Your task to perform on an android device: open app "ColorNote Notepad Notes" Image 0: 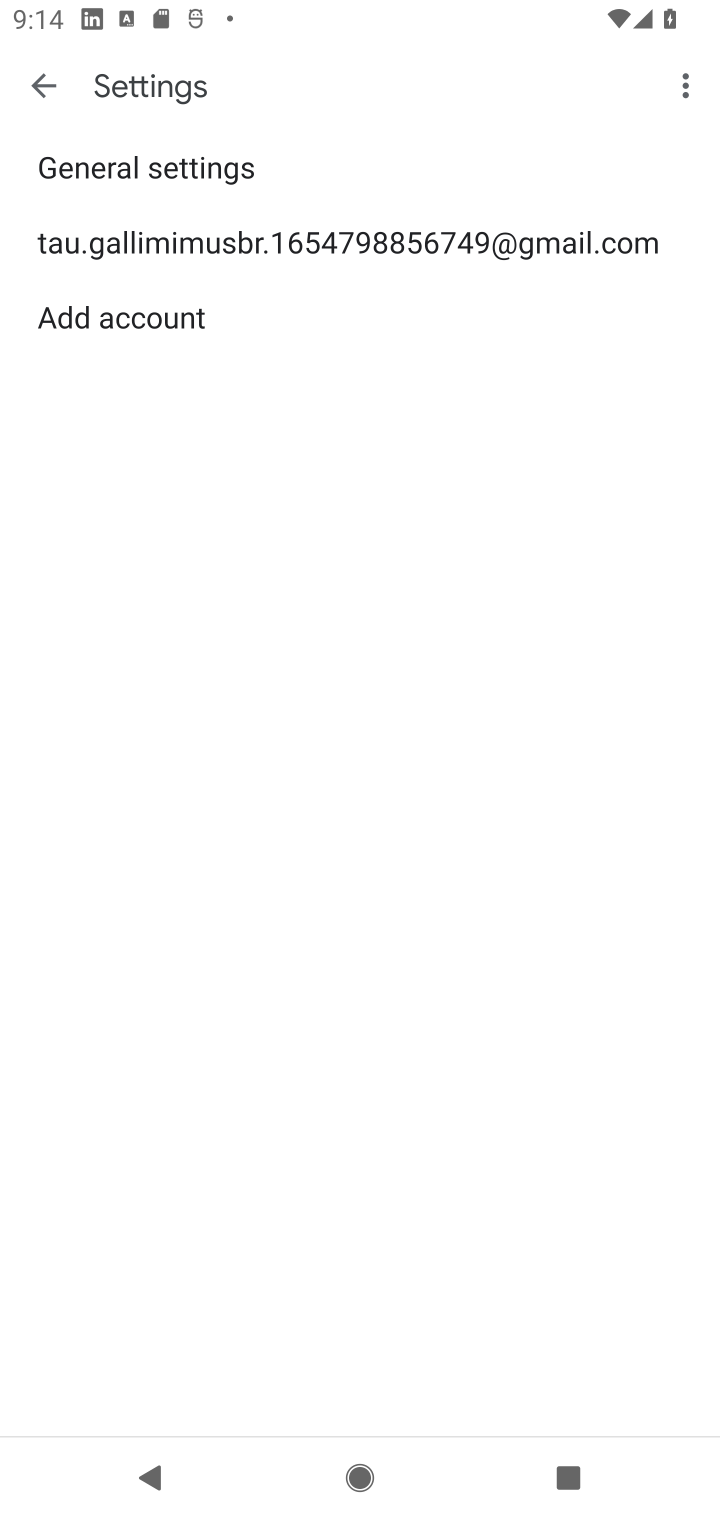
Step 0: press home button
Your task to perform on an android device: open app "ColorNote Notepad Notes" Image 1: 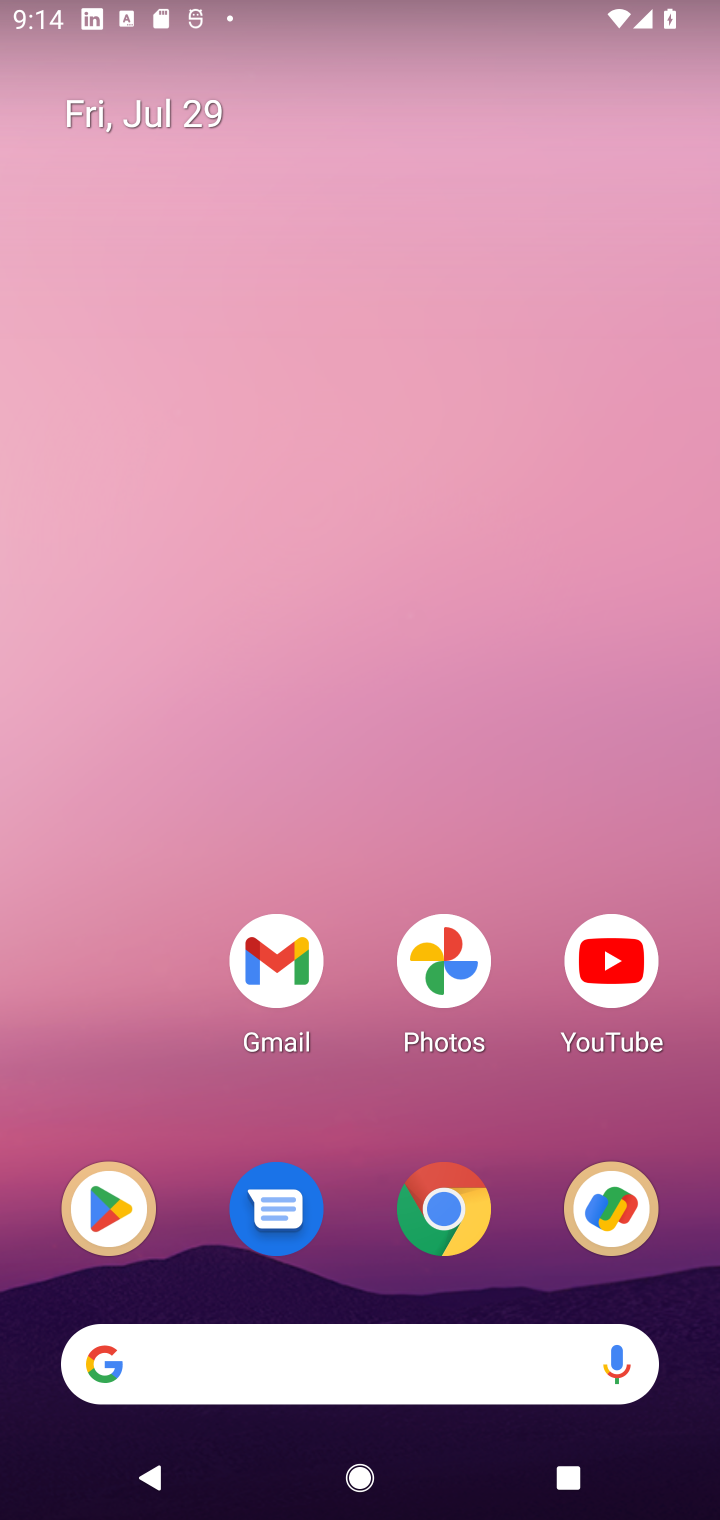
Step 1: click (99, 1203)
Your task to perform on an android device: open app "ColorNote Notepad Notes" Image 2: 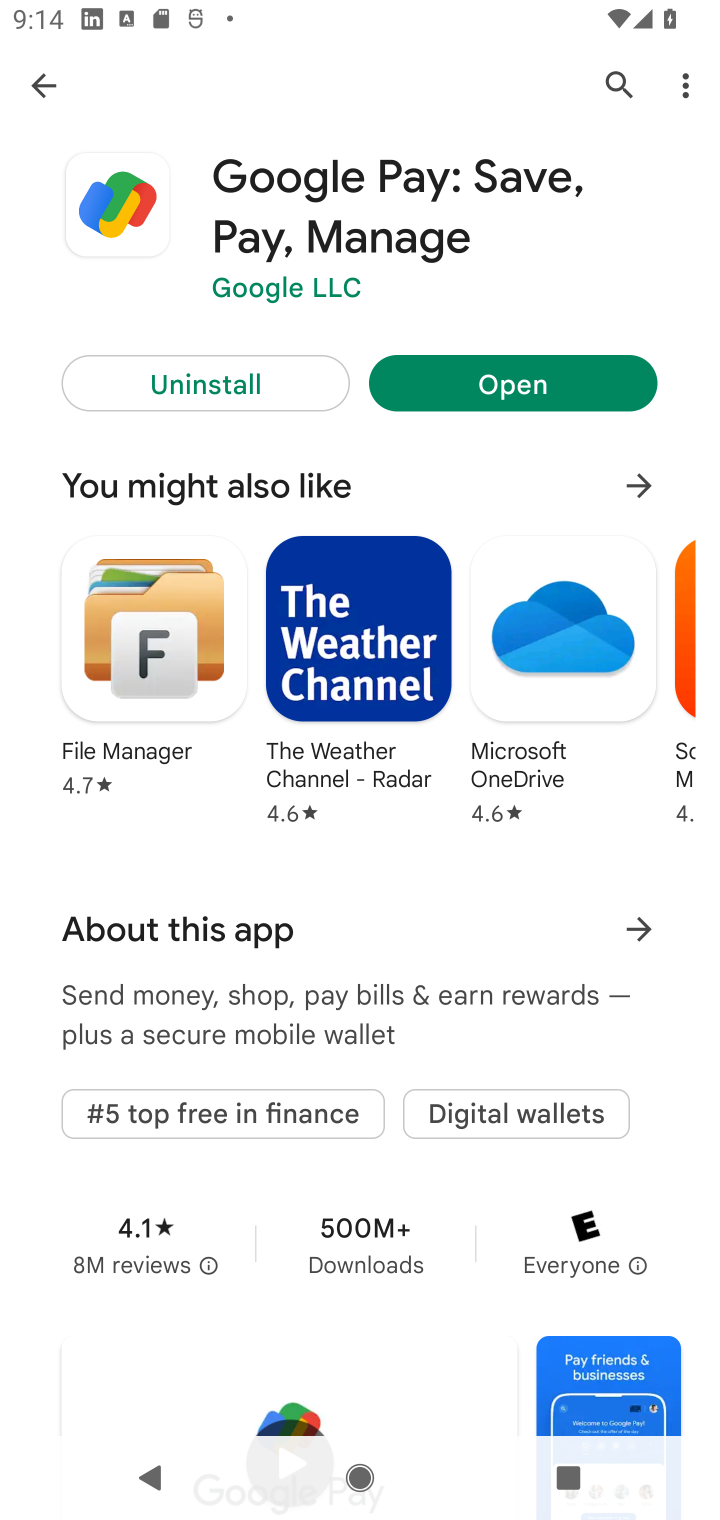
Step 2: click (609, 78)
Your task to perform on an android device: open app "ColorNote Notepad Notes" Image 3: 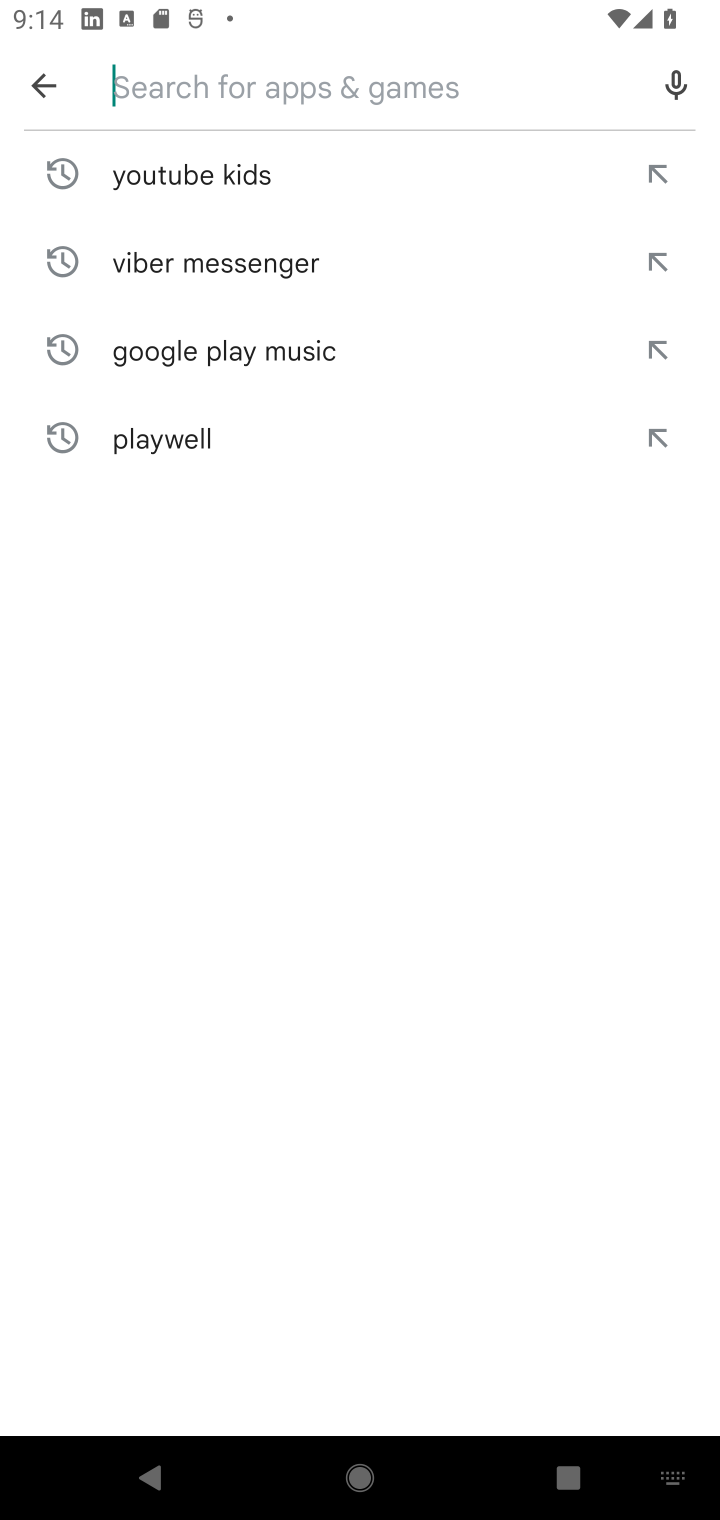
Step 3: type "ColorNote Notepad Notes"
Your task to perform on an android device: open app "ColorNote Notepad Notes" Image 4: 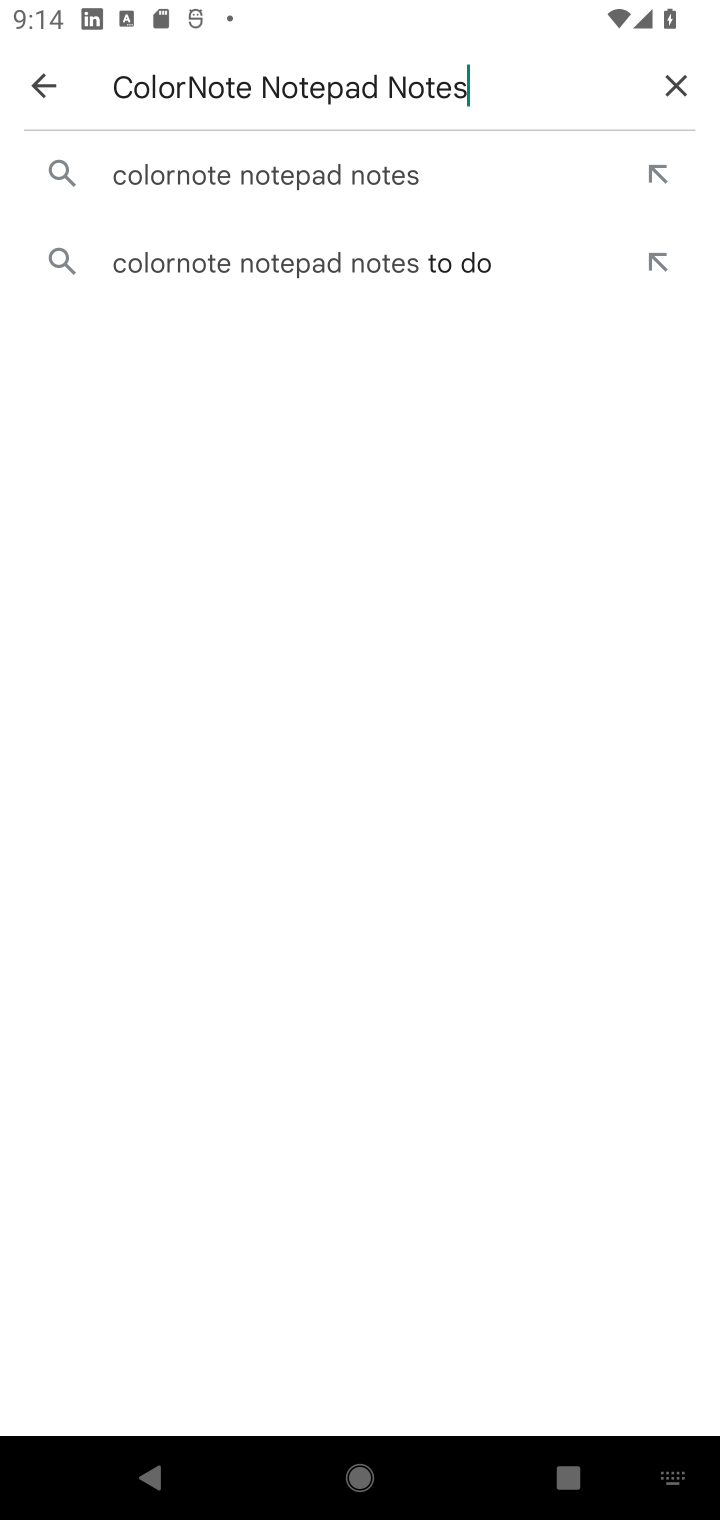
Step 4: click (267, 190)
Your task to perform on an android device: open app "ColorNote Notepad Notes" Image 5: 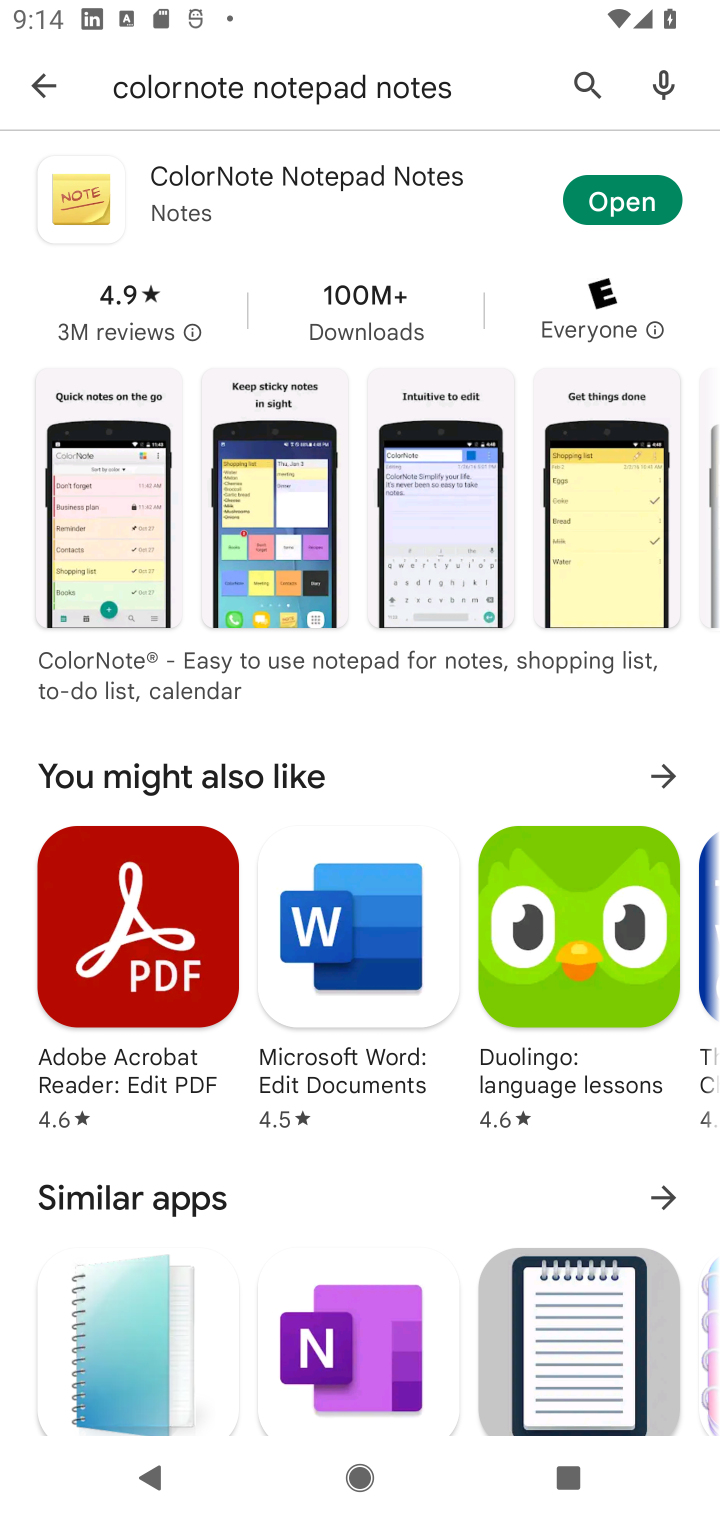
Step 5: click (588, 203)
Your task to perform on an android device: open app "ColorNote Notepad Notes" Image 6: 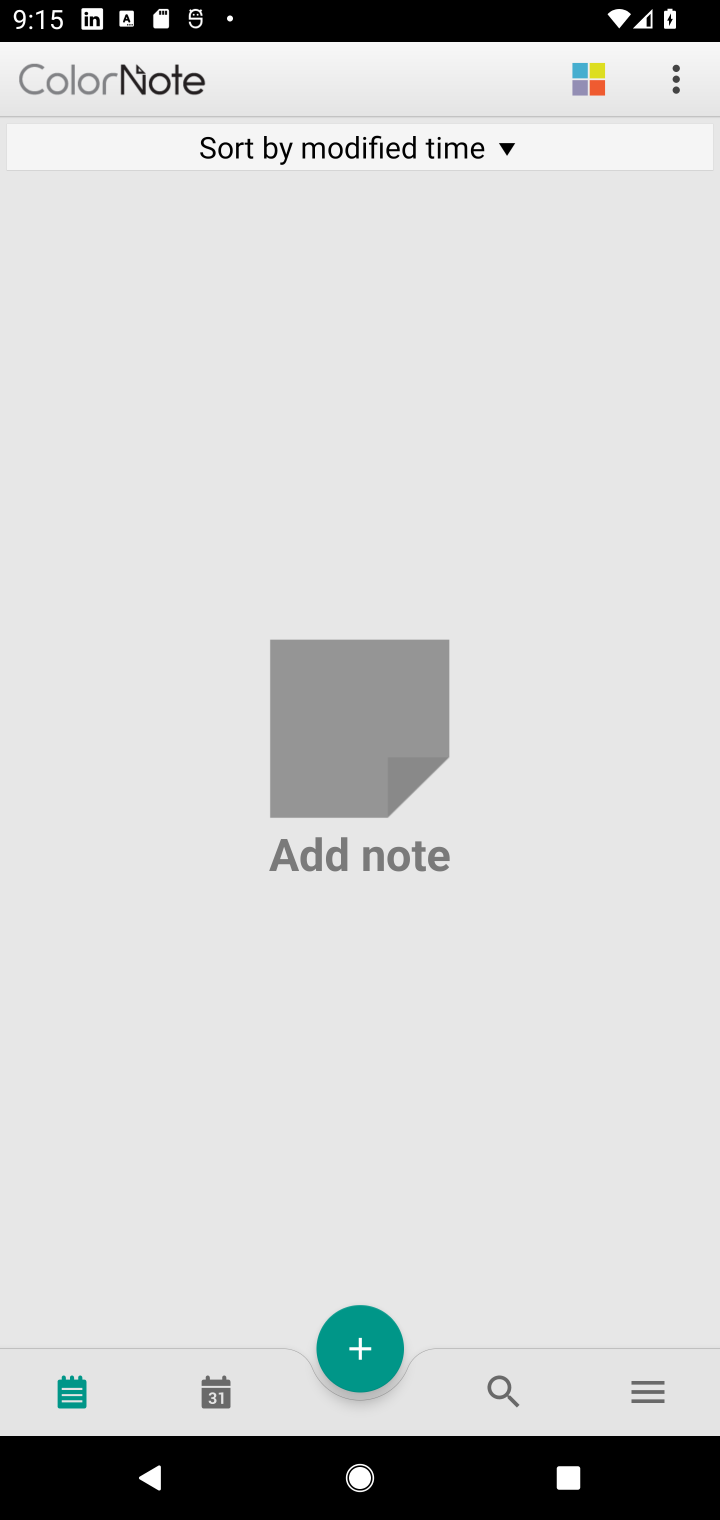
Step 6: task complete